Your task to perform on an android device: Find coffee shops on Maps Image 0: 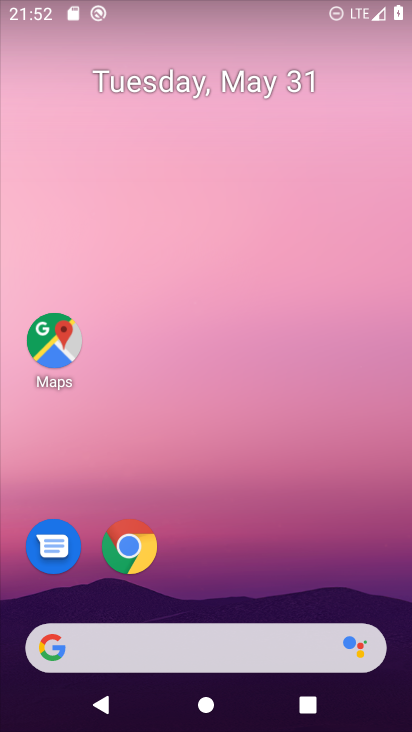
Step 0: click (50, 334)
Your task to perform on an android device: Find coffee shops on Maps Image 1: 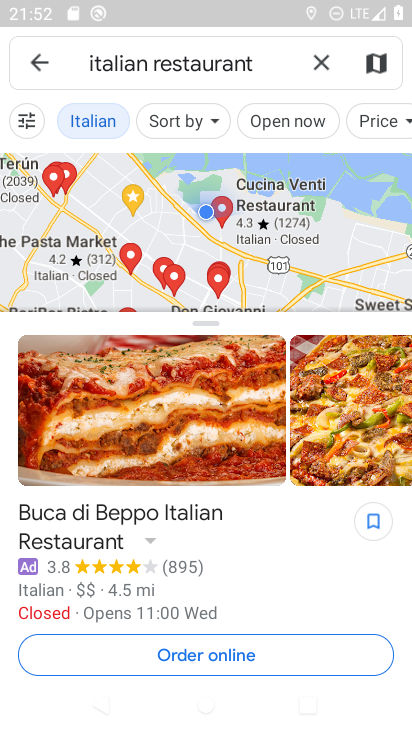
Step 1: click (324, 63)
Your task to perform on an android device: Find coffee shops on Maps Image 2: 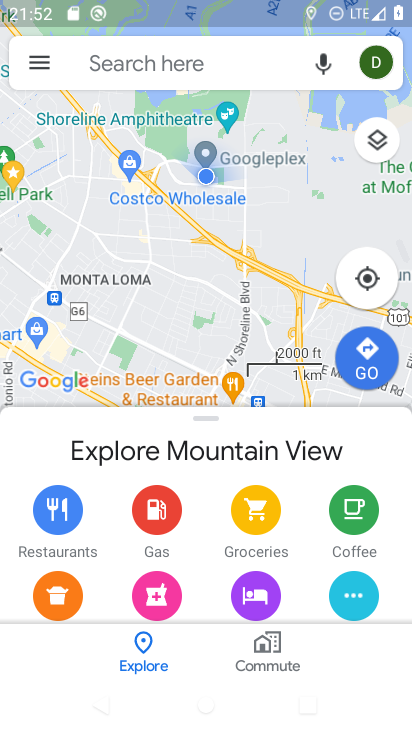
Step 2: type "coffee shops"
Your task to perform on an android device: Find coffee shops on Maps Image 3: 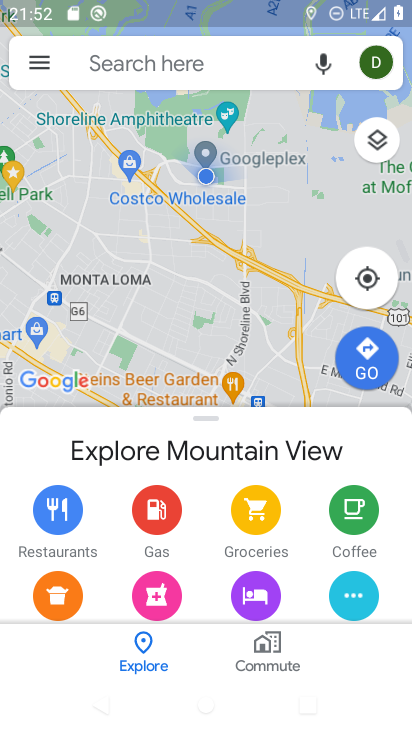
Step 3: click (89, 59)
Your task to perform on an android device: Find coffee shops on Maps Image 4: 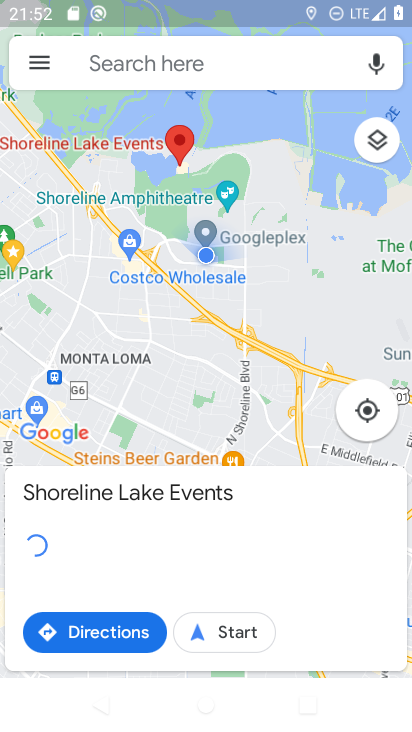
Step 4: type "coffee shops"
Your task to perform on an android device: Find coffee shops on Maps Image 5: 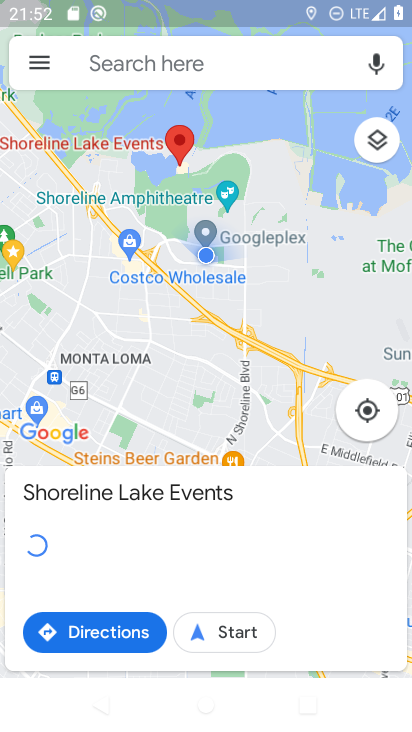
Step 5: click (92, 61)
Your task to perform on an android device: Find coffee shops on Maps Image 6: 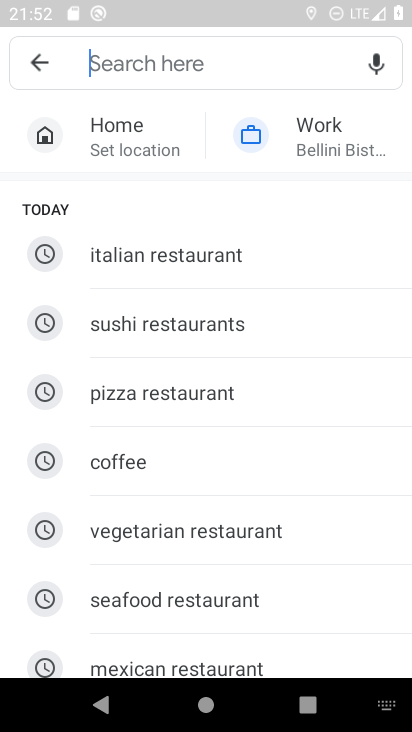
Step 6: type "coffee shops"
Your task to perform on an android device: Find coffee shops on Maps Image 7: 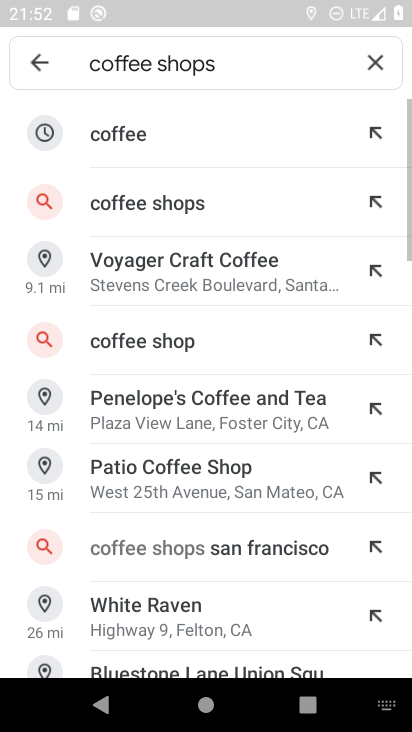
Step 7: click (112, 203)
Your task to perform on an android device: Find coffee shops on Maps Image 8: 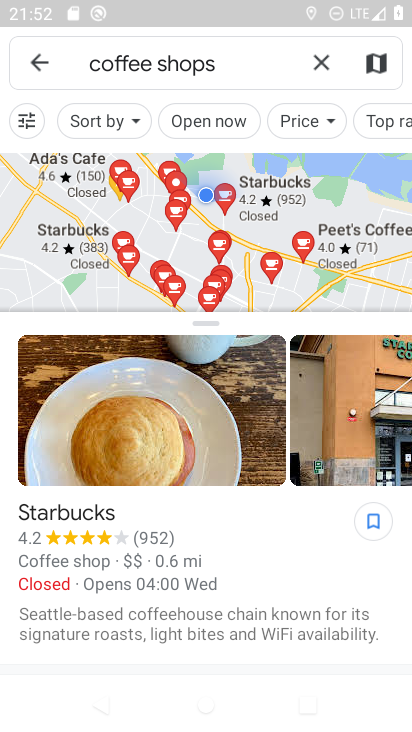
Step 8: task complete